Your task to perform on an android device: delete the emails in spam in the gmail app Image 0: 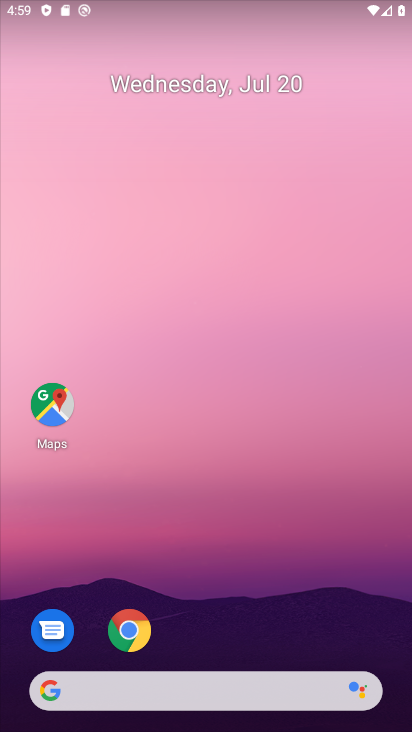
Step 0: drag from (337, 681) to (345, 48)
Your task to perform on an android device: delete the emails in spam in the gmail app Image 1: 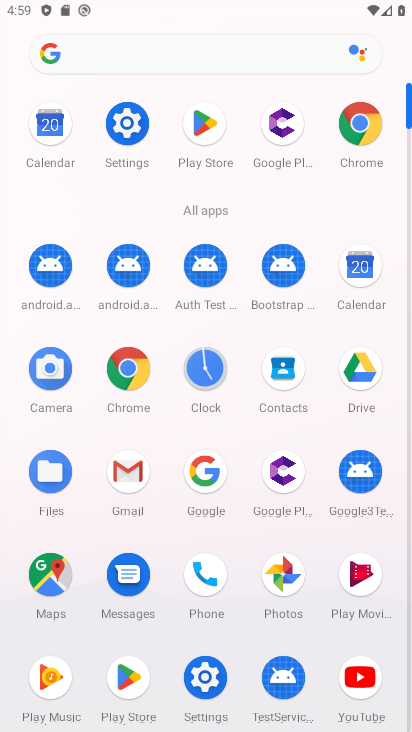
Step 1: click (121, 461)
Your task to perform on an android device: delete the emails in spam in the gmail app Image 2: 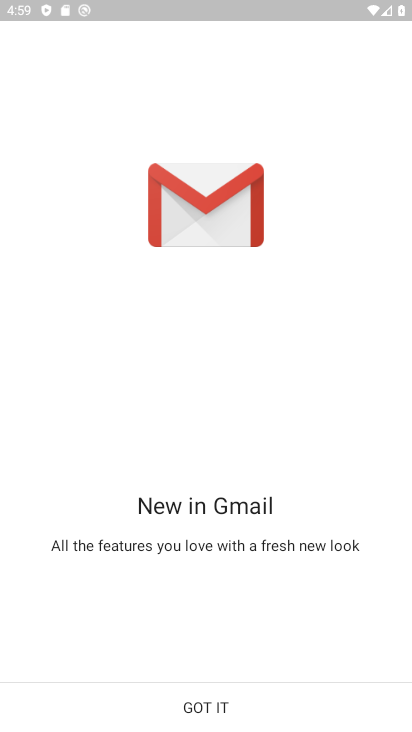
Step 2: click (154, 689)
Your task to perform on an android device: delete the emails in spam in the gmail app Image 3: 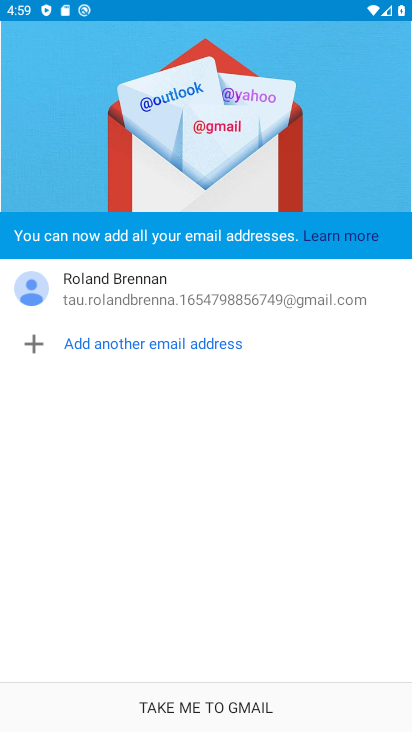
Step 3: click (182, 702)
Your task to perform on an android device: delete the emails in spam in the gmail app Image 4: 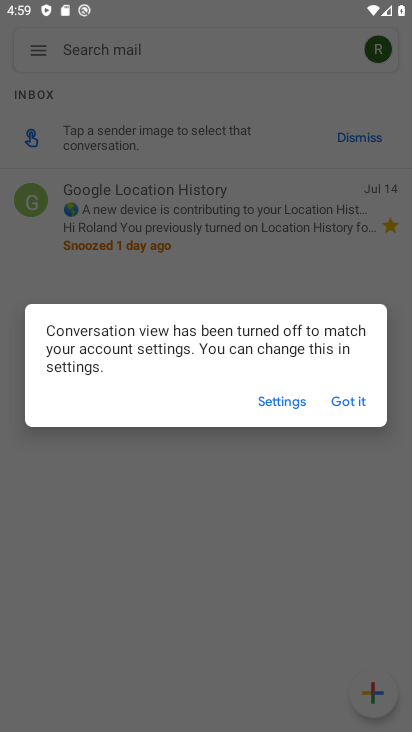
Step 4: click (349, 402)
Your task to perform on an android device: delete the emails in spam in the gmail app Image 5: 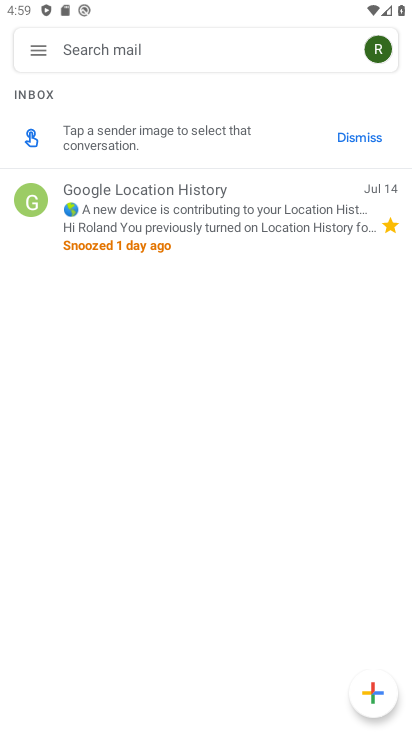
Step 5: click (39, 46)
Your task to perform on an android device: delete the emails in spam in the gmail app Image 6: 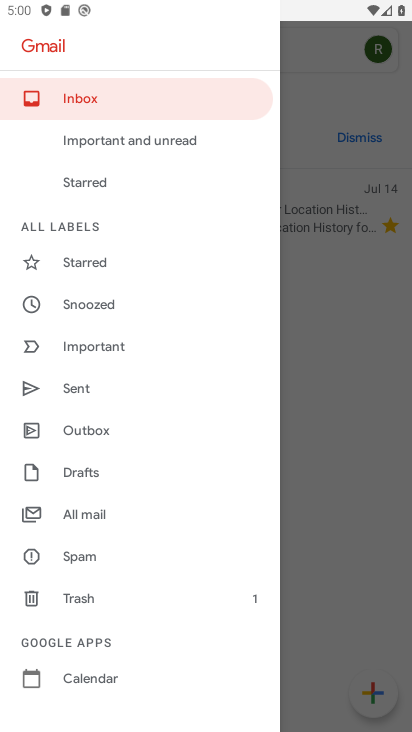
Step 6: click (77, 562)
Your task to perform on an android device: delete the emails in spam in the gmail app Image 7: 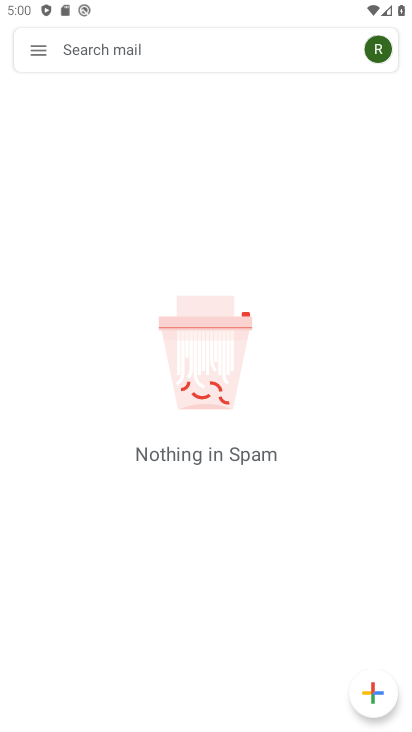
Step 7: task complete